Your task to perform on an android device: show emergency info Image 0: 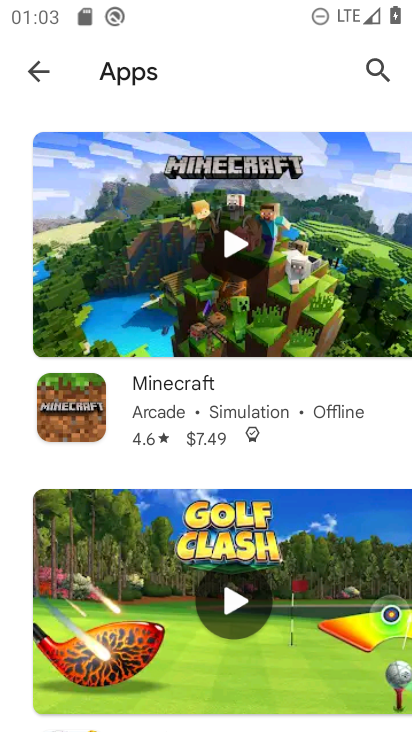
Step 0: press home button
Your task to perform on an android device: show emergency info Image 1: 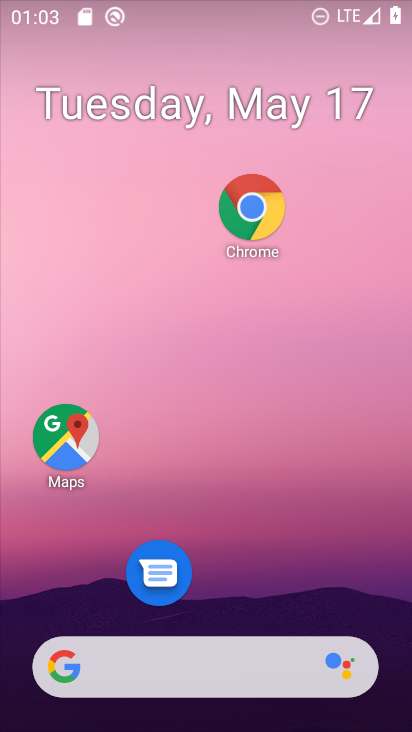
Step 1: drag from (258, 676) to (258, 31)
Your task to perform on an android device: show emergency info Image 2: 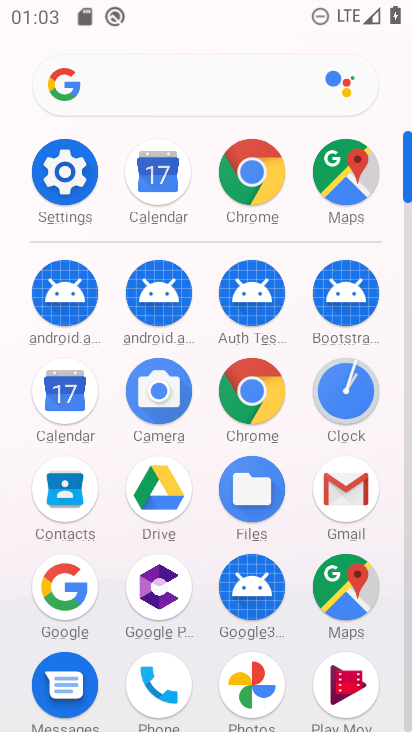
Step 2: click (82, 179)
Your task to perform on an android device: show emergency info Image 3: 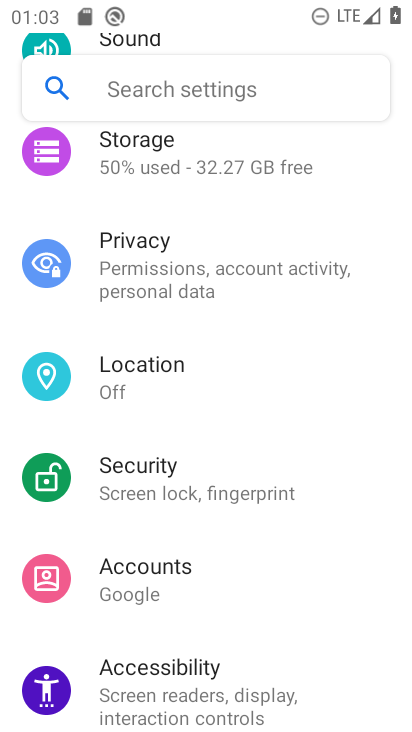
Step 3: drag from (219, 726) to (157, 42)
Your task to perform on an android device: show emergency info Image 4: 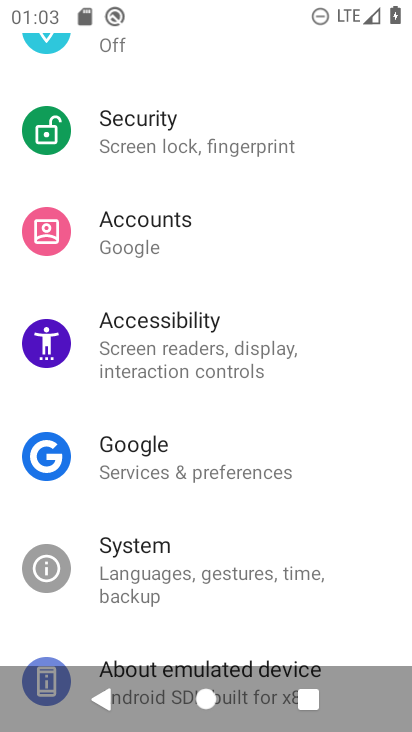
Step 4: click (208, 666)
Your task to perform on an android device: show emergency info Image 5: 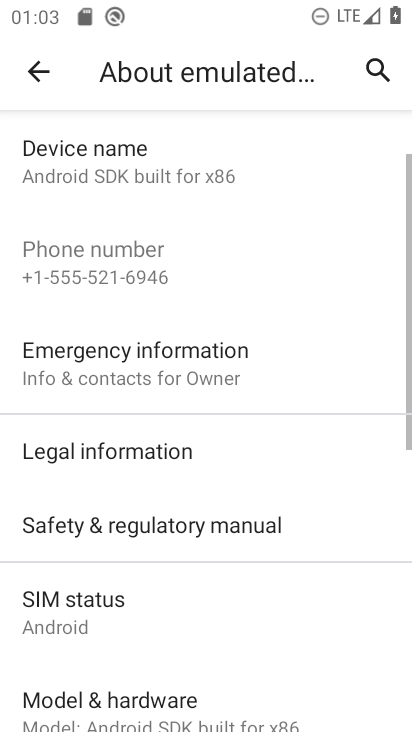
Step 5: task complete